Your task to perform on an android device: Play the last video I watched on Youtube Image 0: 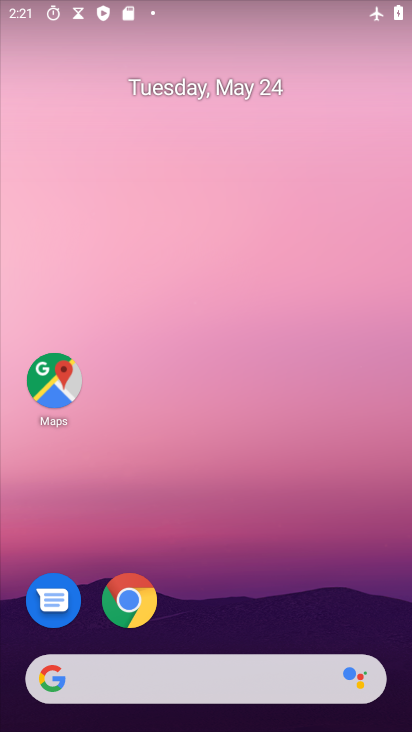
Step 0: drag from (272, 593) to (173, 45)
Your task to perform on an android device: Play the last video I watched on Youtube Image 1: 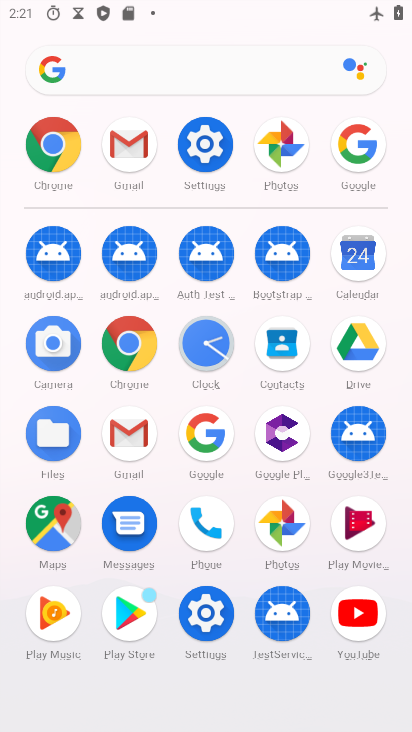
Step 1: click (359, 618)
Your task to perform on an android device: Play the last video I watched on Youtube Image 2: 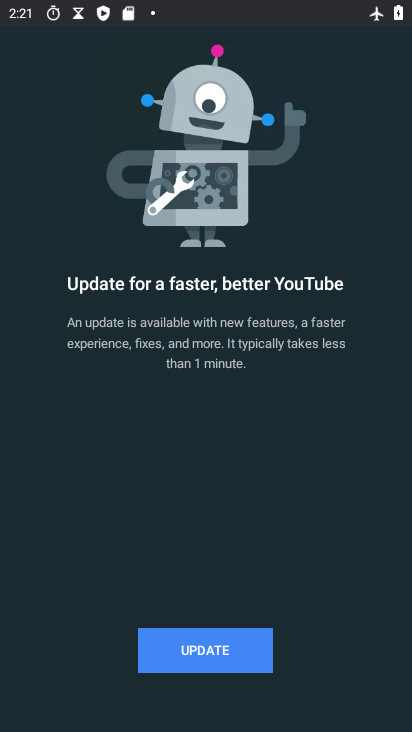
Step 2: click (225, 646)
Your task to perform on an android device: Play the last video I watched on Youtube Image 3: 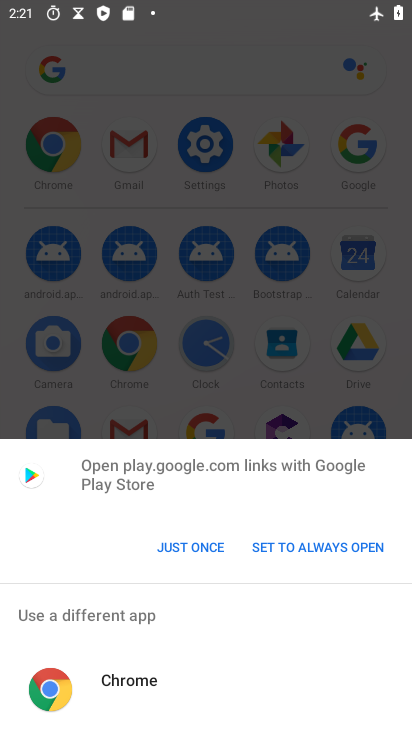
Step 3: click (202, 546)
Your task to perform on an android device: Play the last video I watched on Youtube Image 4: 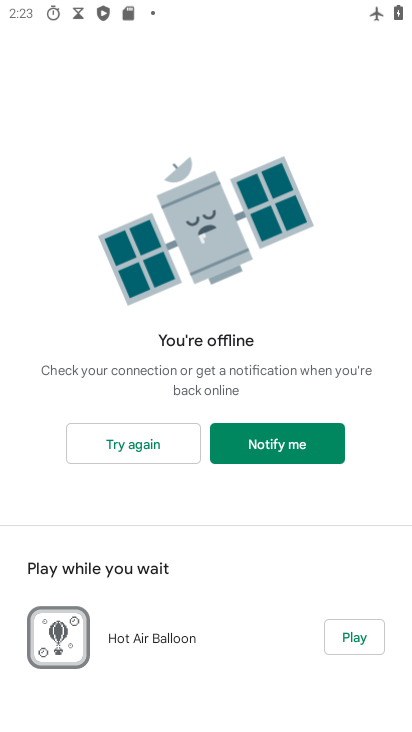
Step 4: task complete